Your task to perform on an android device: open wifi settings Image 0: 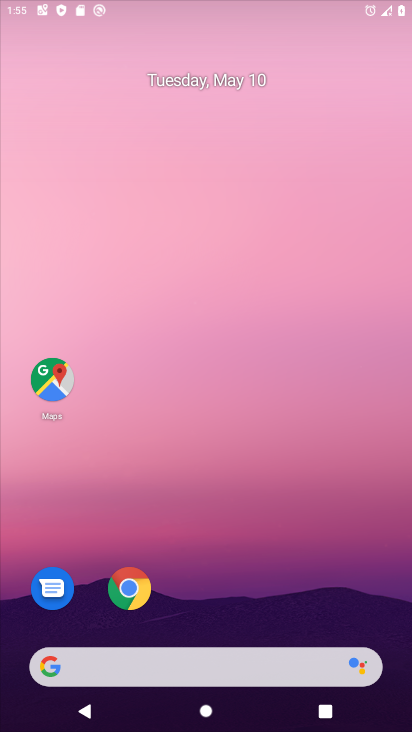
Step 0: drag from (238, 553) to (231, 220)
Your task to perform on an android device: open wifi settings Image 1: 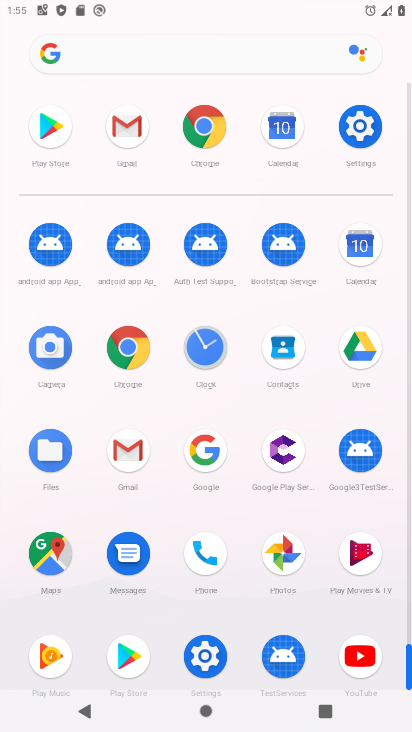
Step 1: click (347, 119)
Your task to perform on an android device: open wifi settings Image 2: 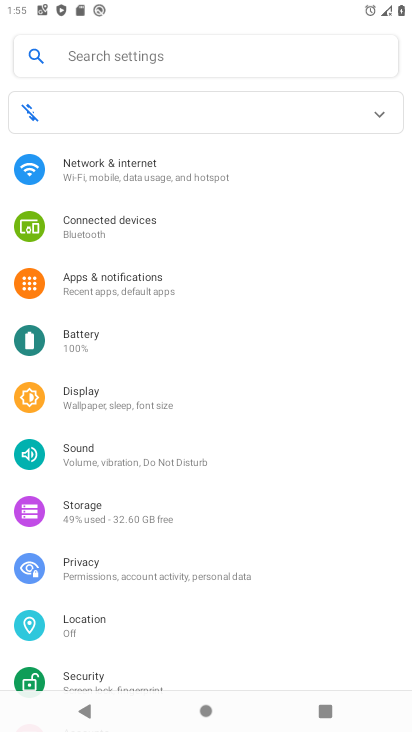
Step 2: click (98, 162)
Your task to perform on an android device: open wifi settings Image 3: 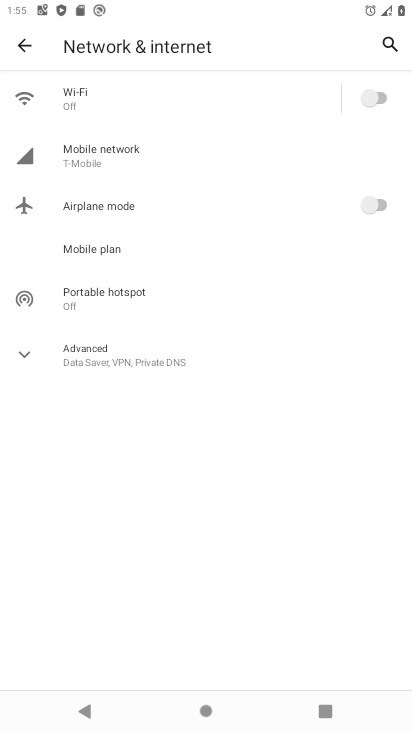
Step 3: click (366, 89)
Your task to perform on an android device: open wifi settings Image 4: 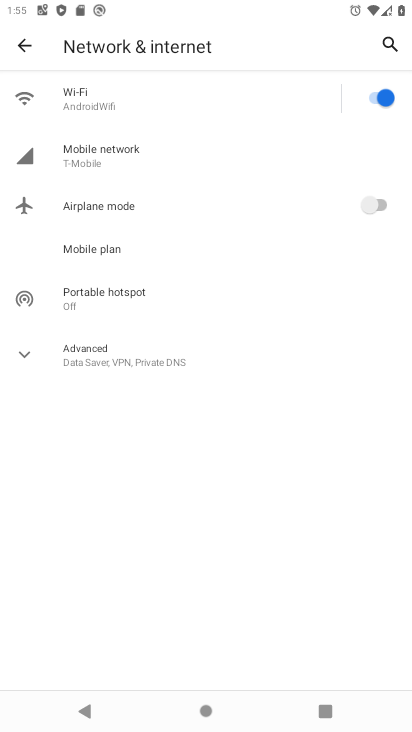
Step 4: task complete